Your task to perform on an android device: add a contact in the contacts app Image 0: 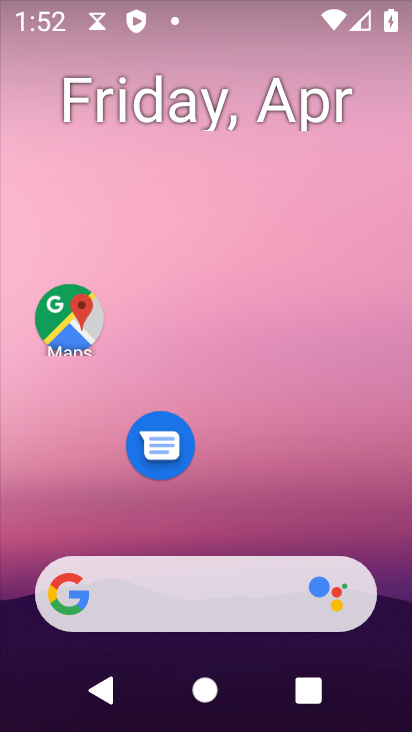
Step 0: drag from (212, 504) to (261, 196)
Your task to perform on an android device: add a contact in the contacts app Image 1: 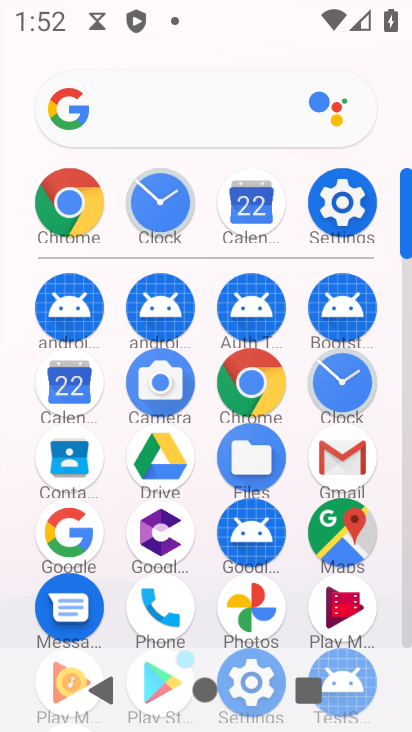
Step 1: click (69, 459)
Your task to perform on an android device: add a contact in the contacts app Image 2: 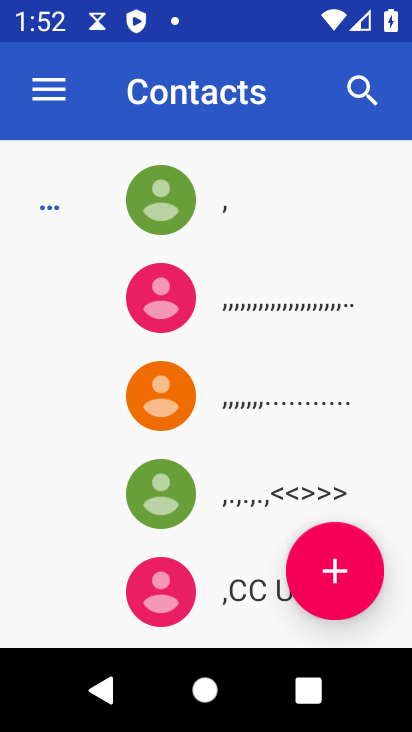
Step 2: click (304, 578)
Your task to perform on an android device: add a contact in the contacts app Image 3: 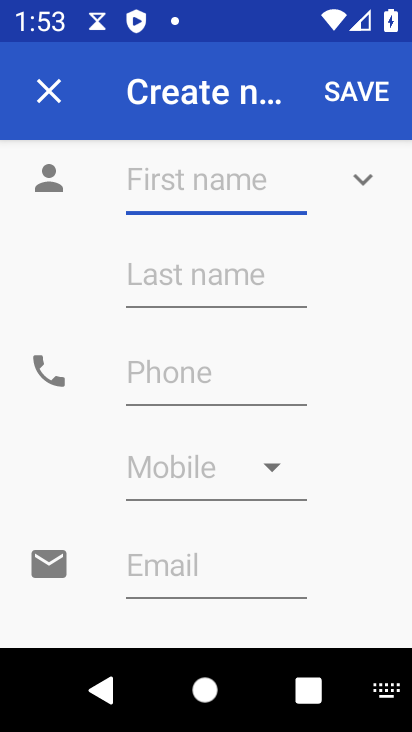
Step 3: type "axdcsvzsadcxzds"
Your task to perform on an android device: add a contact in the contacts app Image 4: 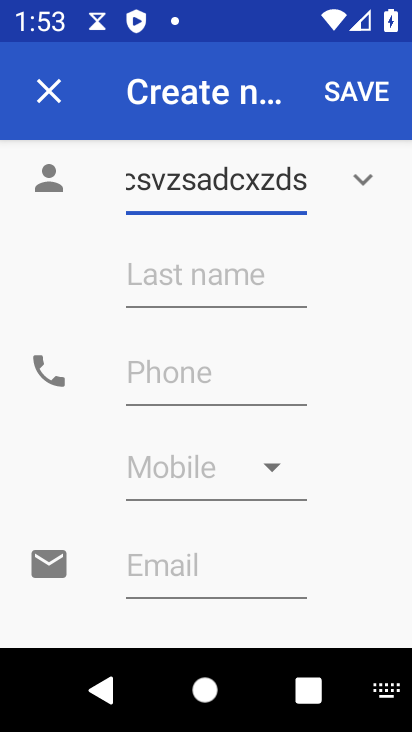
Step 4: click (160, 374)
Your task to perform on an android device: add a contact in the contacts app Image 5: 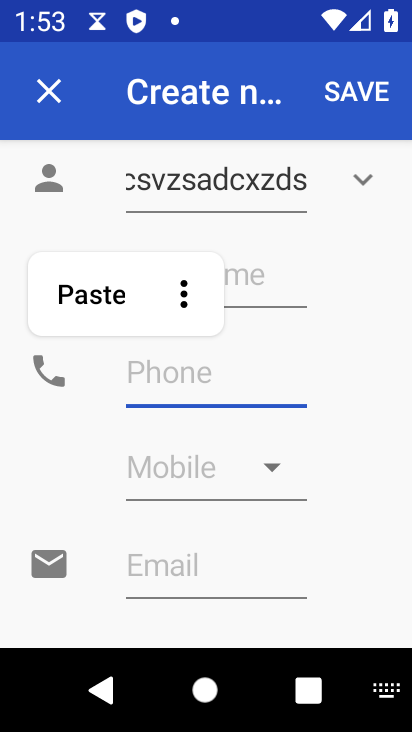
Step 5: type "21345676890"
Your task to perform on an android device: add a contact in the contacts app Image 6: 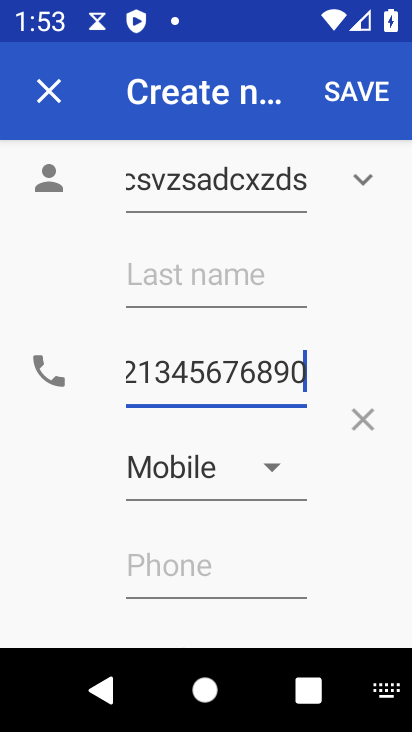
Step 6: click (353, 96)
Your task to perform on an android device: add a contact in the contacts app Image 7: 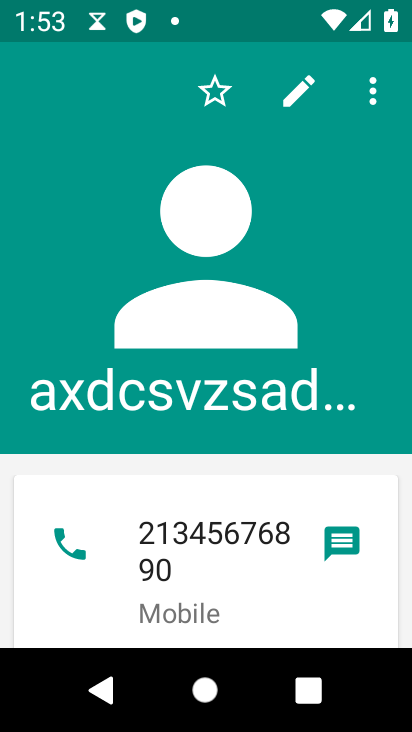
Step 7: task complete